Your task to perform on an android device: Open Youtube and go to the subscriptions tab Image 0: 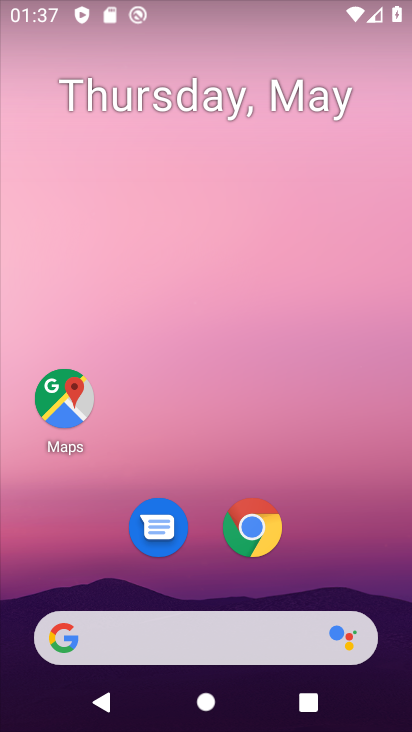
Step 0: click (252, 249)
Your task to perform on an android device: Open Youtube and go to the subscriptions tab Image 1: 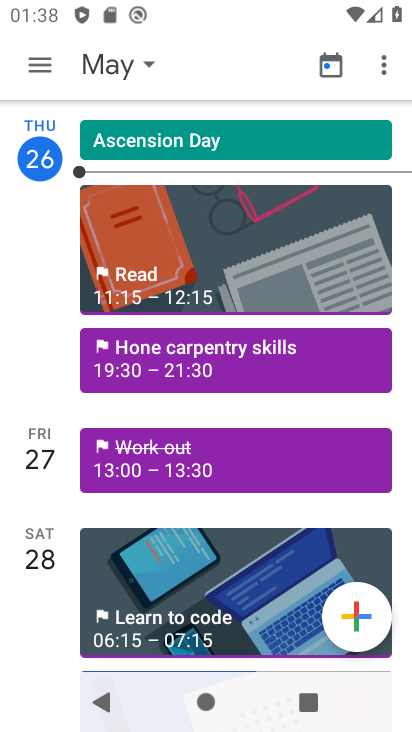
Step 1: press home button
Your task to perform on an android device: Open Youtube and go to the subscriptions tab Image 2: 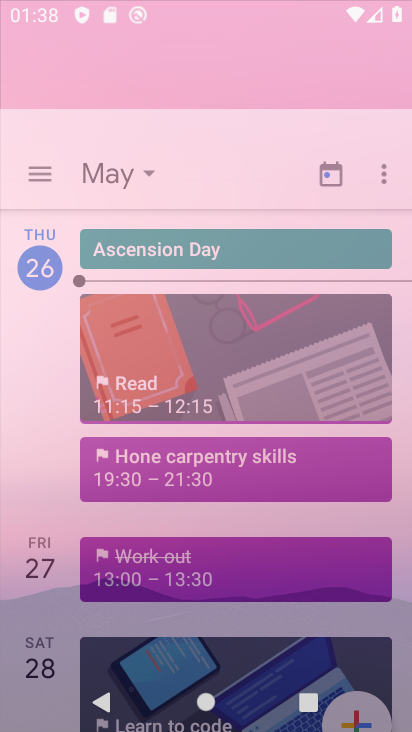
Step 2: drag from (181, 667) to (268, 76)
Your task to perform on an android device: Open Youtube and go to the subscriptions tab Image 3: 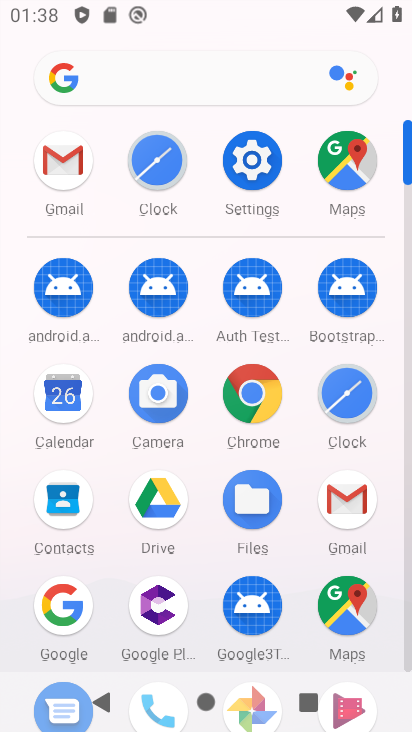
Step 3: drag from (211, 622) to (231, 276)
Your task to perform on an android device: Open Youtube and go to the subscriptions tab Image 4: 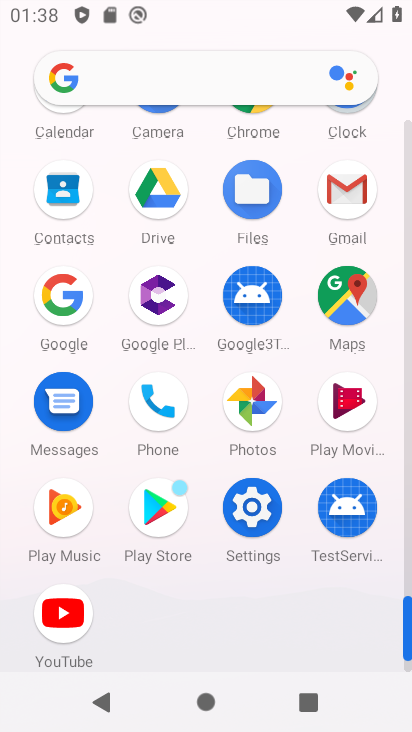
Step 4: click (80, 619)
Your task to perform on an android device: Open Youtube and go to the subscriptions tab Image 5: 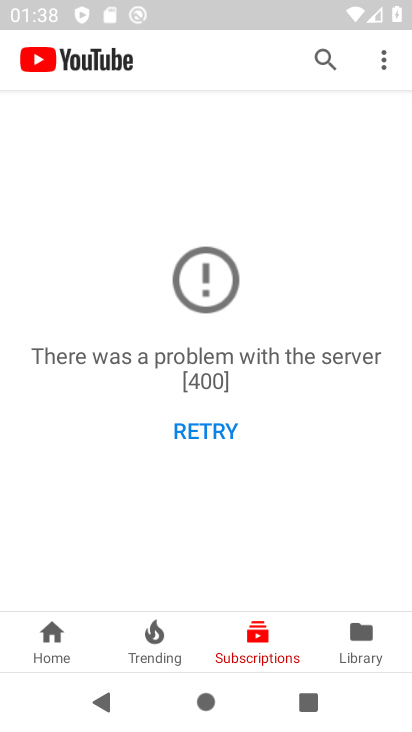
Step 5: click (246, 649)
Your task to perform on an android device: Open Youtube and go to the subscriptions tab Image 6: 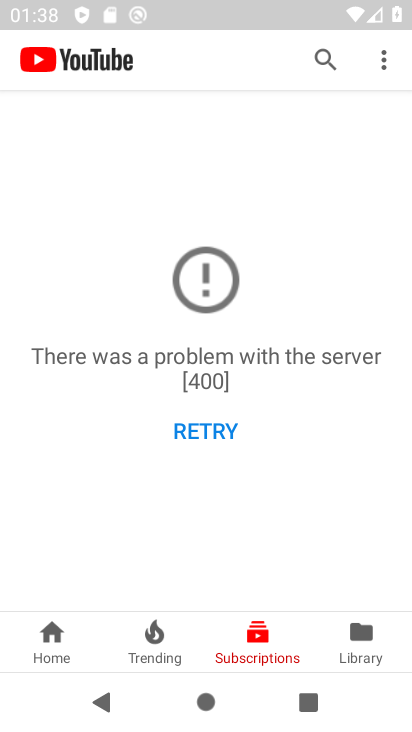
Step 6: click (202, 424)
Your task to perform on an android device: Open Youtube and go to the subscriptions tab Image 7: 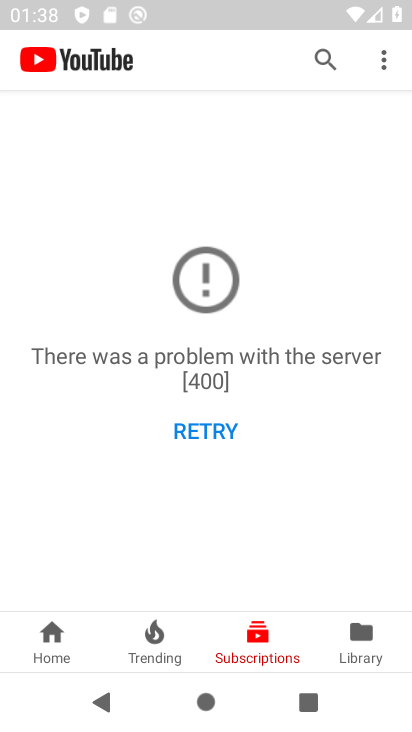
Step 7: click (263, 632)
Your task to perform on an android device: Open Youtube and go to the subscriptions tab Image 8: 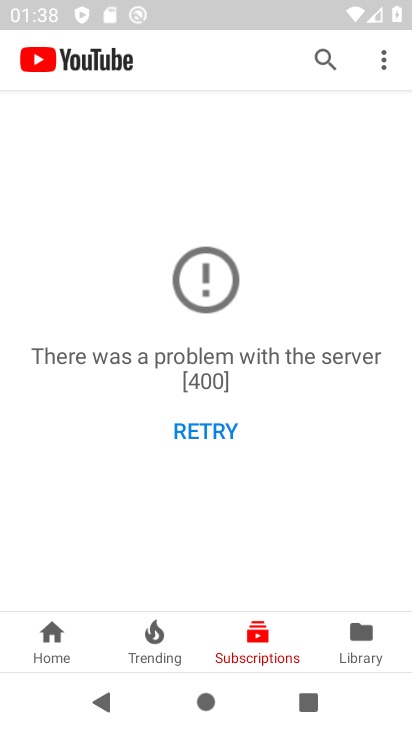
Step 8: task complete